Your task to perform on an android device: stop showing notifications on the lock screen Image 0: 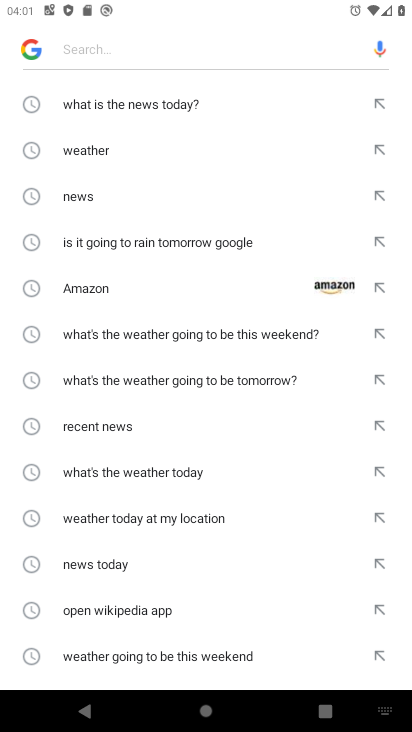
Step 0: press home button
Your task to perform on an android device: stop showing notifications on the lock screen Image 1: 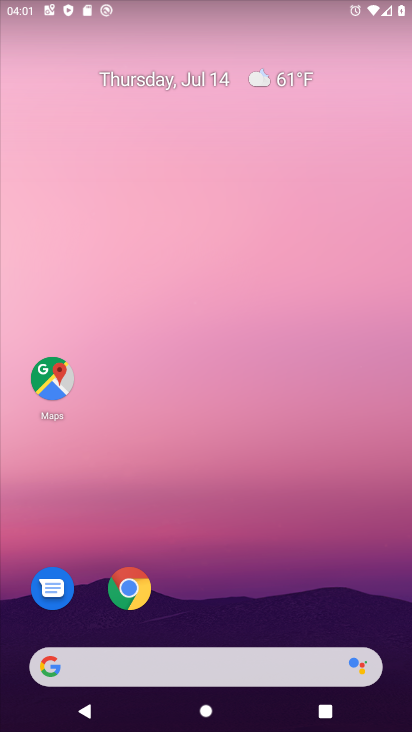
Step 1: drag from (234, 561) to (226, 5)
Your task to perform on an android device: stop showing notifications on the lock screen Image 2: 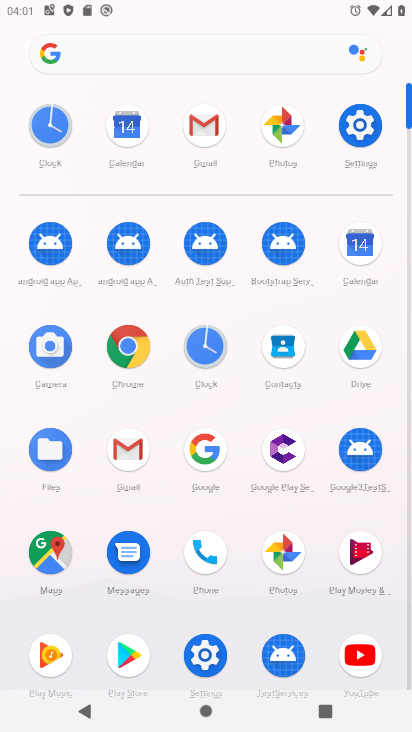
Step 2: click (358, 127)
Your task to perform on an android device: stop showing notifications on the lock screen Image 3: 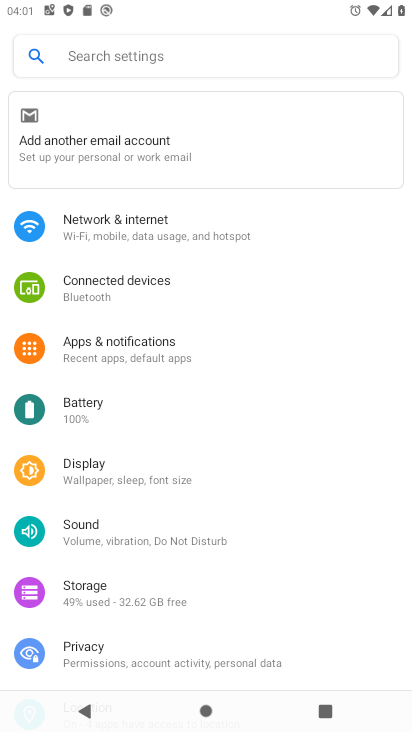
Step 3: click (128, 351)
Your task to perform on an android device: stop showing notifications on the lock screen Image 4: 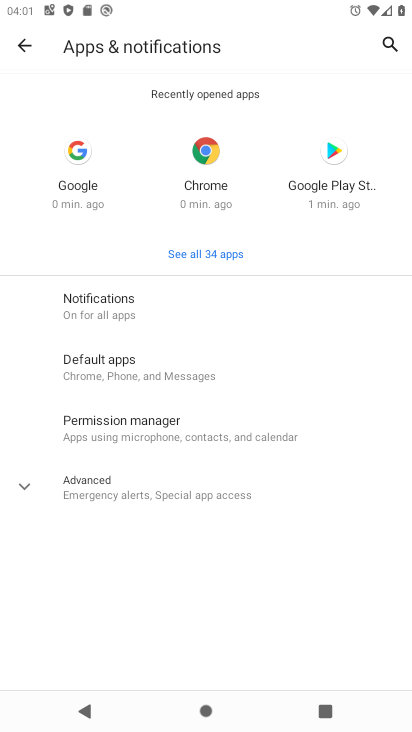
Step 4: click (89, 305)
Your task to perform on an android device: stop showing notifications on the lock screen Image 5: 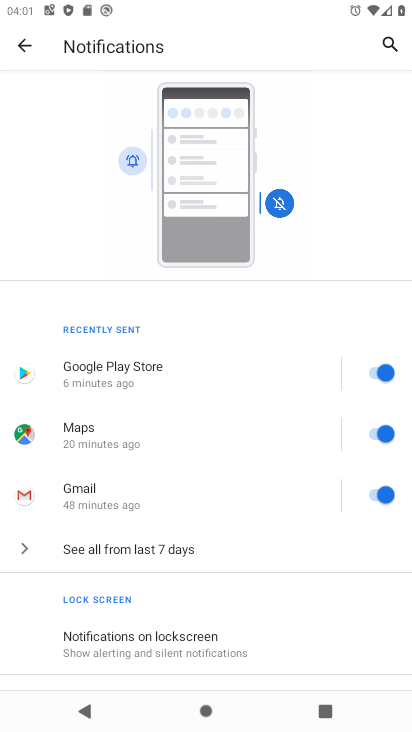
Step 5: click (148, 646)
Your task to perform on an android device: stop showing notifications on the lock screen Image 6: 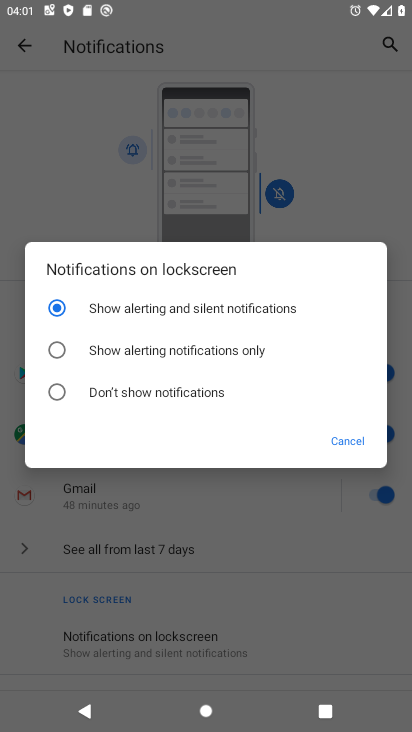
Step 6: click (59, 392)
Your task to perform on an android device: stop showing notifications on the lock screen Image 7: 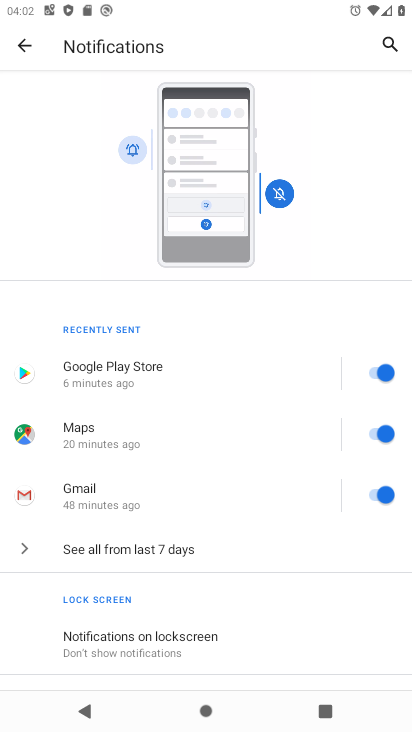
Step 7: task complete